Your task to perform on an android device: turn pop-ups off in chrome Image 0: 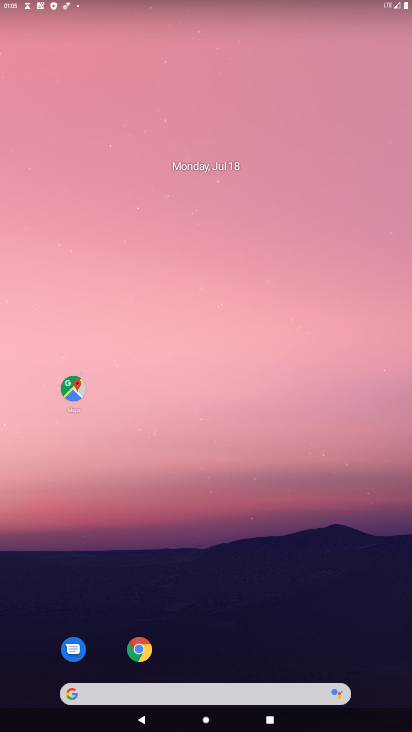
Step 0: click (134, 654)
Your task to perform on an android device: turn pop-ups off in chrome Image 1: 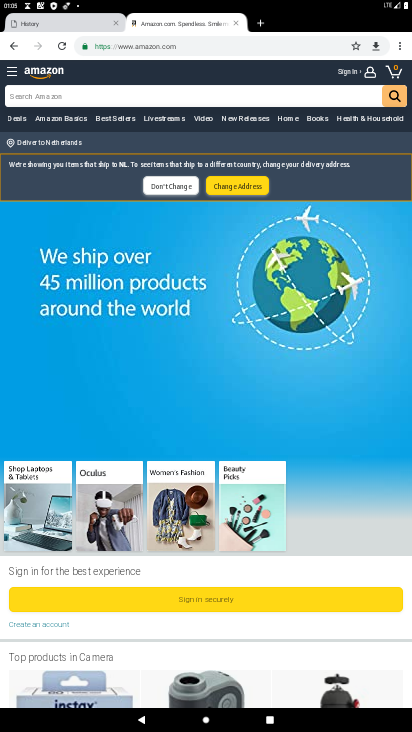
Step 1: click (401, 46)
Your task to perform on an android device: turn pop-ups off in chrome Image 2: 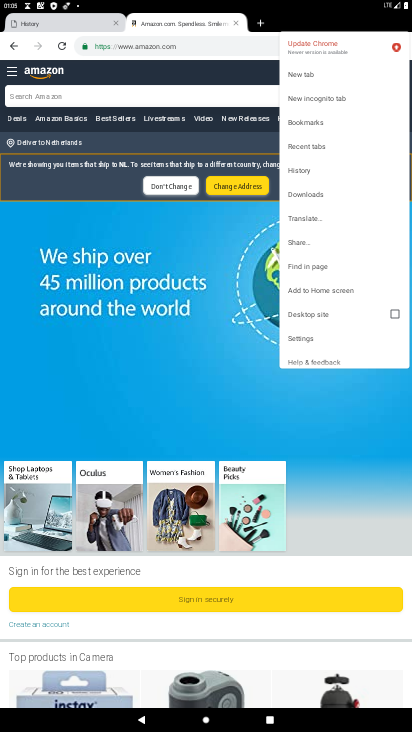
Step 2: click (307, 339)
Your task to perform on an android device: turn pop-ups off in chrome Image 3: 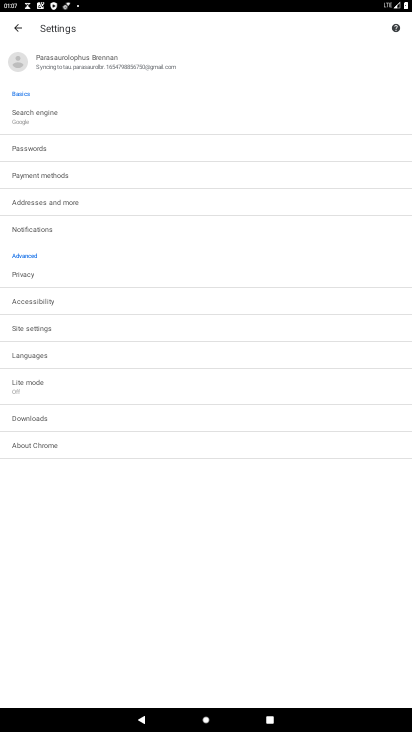
Step 3: press home button
Your task to perform on an android device: turn pop-ups off in chrome Image 4: 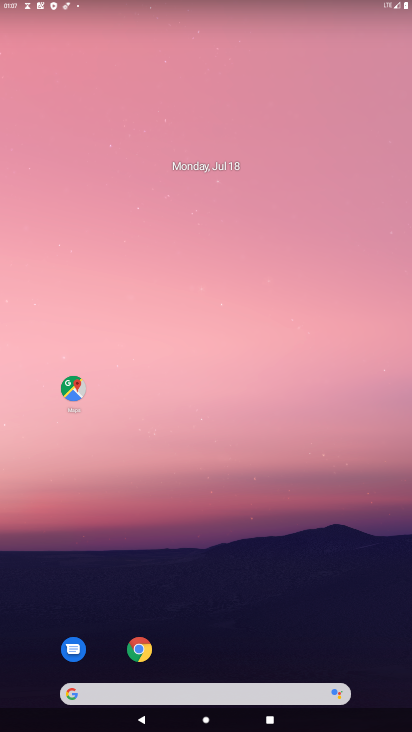
Step 4: click (137, 652)
Your task to perform on an android device: turn pop-ups off in chrome Image 5: 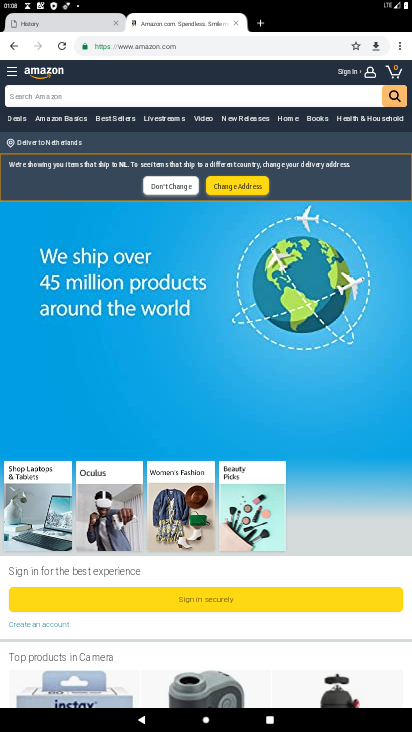
Step 5: click (401, 44)
Your task to perform on an android device: turn pop-ups off in chrome Image 6: 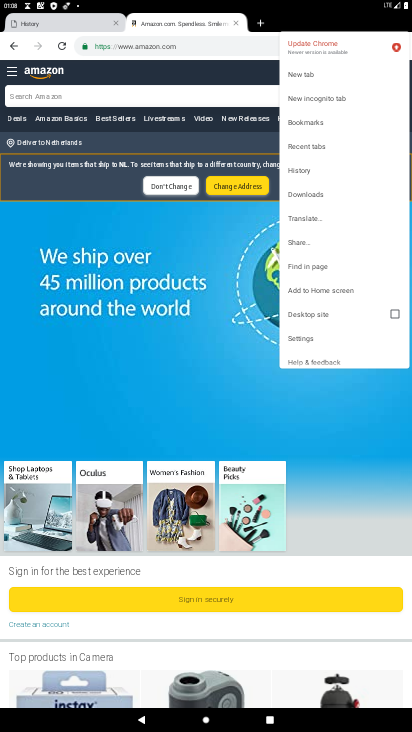
Step 6: click (299, 337)
Your task to perform on an android device: turn pop-ups off in chrome Image 7: 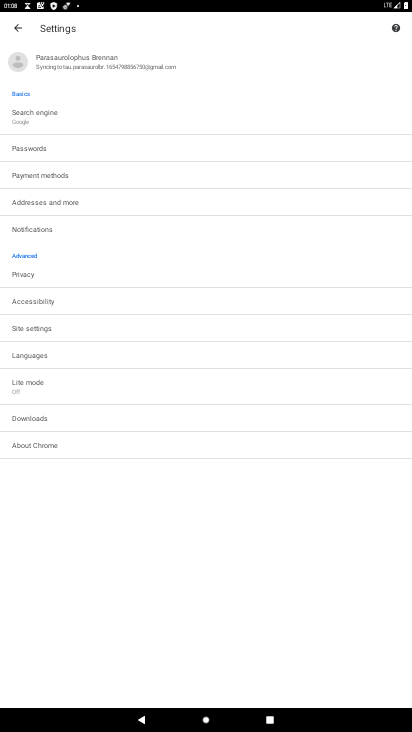
Step 7: click (35, 322)
Your task to perform on an android device: turn pop-ups off in chrome Image 8: 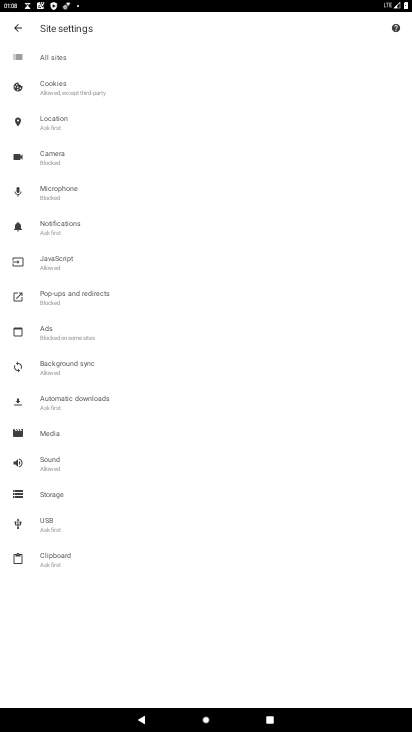
Step 8: click (70, 296)
Your task to perform on an android device: turn pop-ups off in chrome Image 9: 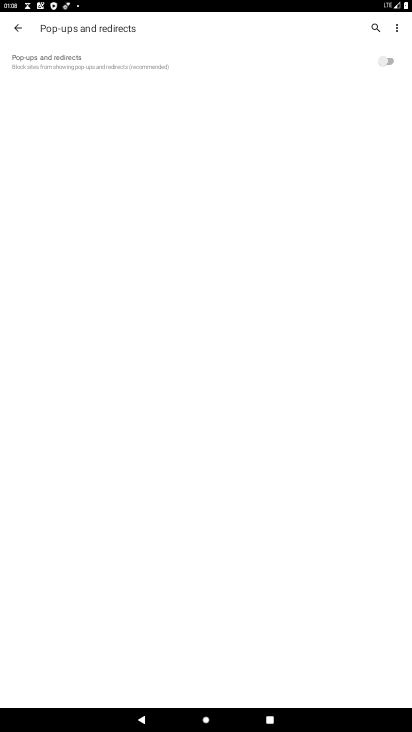
Step 9: task complete